Your task to perform on an android device: search for starred emails in the gmail app Image 0: 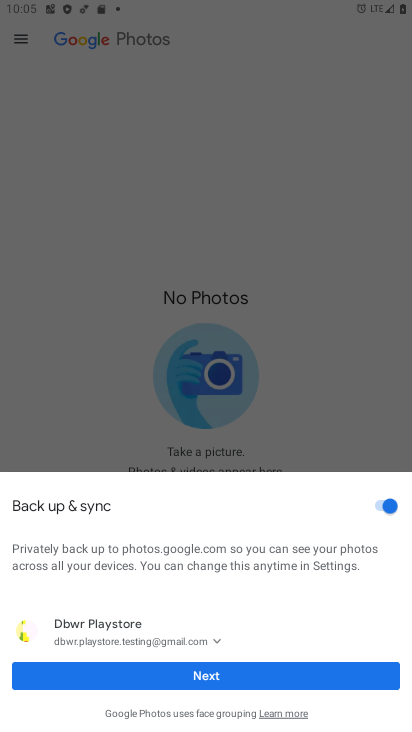
Step 0: press home button
Your task to perform on an android device: search for starred emails in the gmail app Image 1: 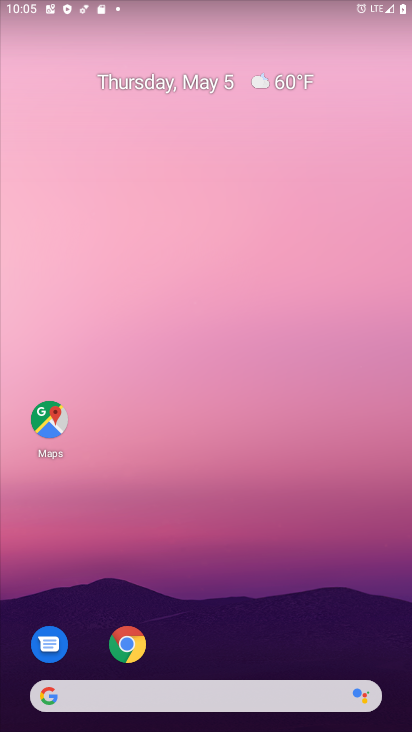
Step 1: drag from (200, 604) to (220, 221)
Your task to perform on an android device: search for starred emails in the gmail app Image 2: 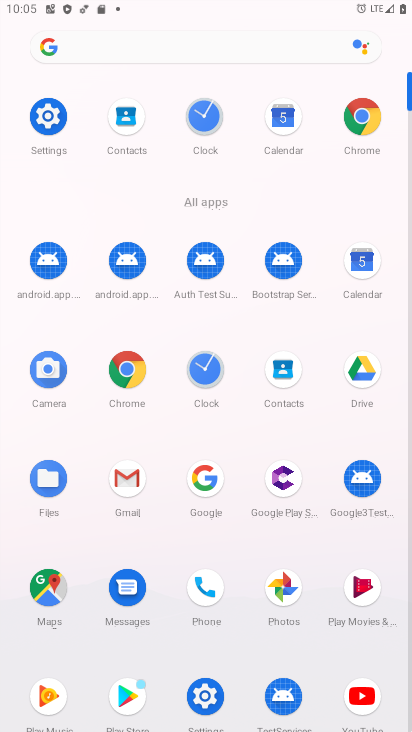
Step 2: click (119, 470)
Your task to perform on an android device: search for starred emails in the gmail app Image 3: 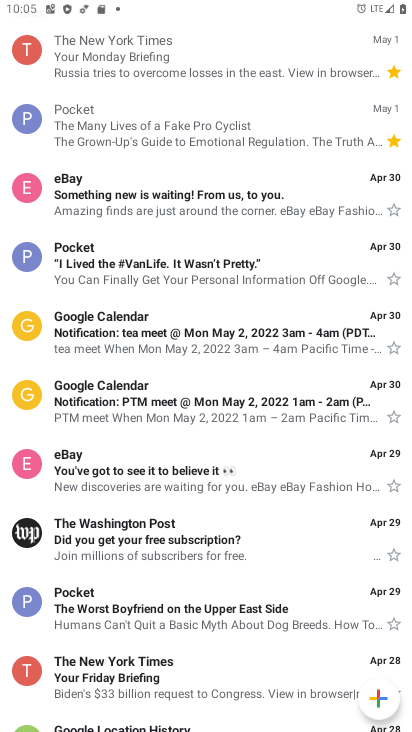
Step 3: drag from (126, 99) to (112, 495)
Your task to perform on an android device: search for starred emails in the gmail app Image 4: 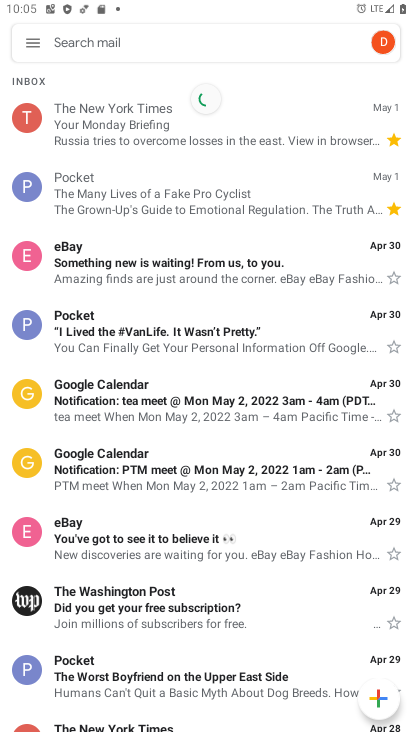
Step 4: click (33, 41)
Your task to perform on an android device: search for starred emails in the gmail app Image 5: 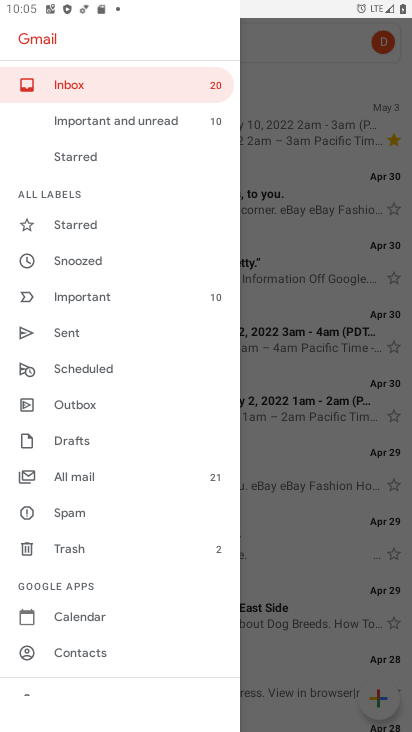
Step 5: click (83, 229)
Your task to perform on an android device: search for starred emails in the gmail app Image 6: 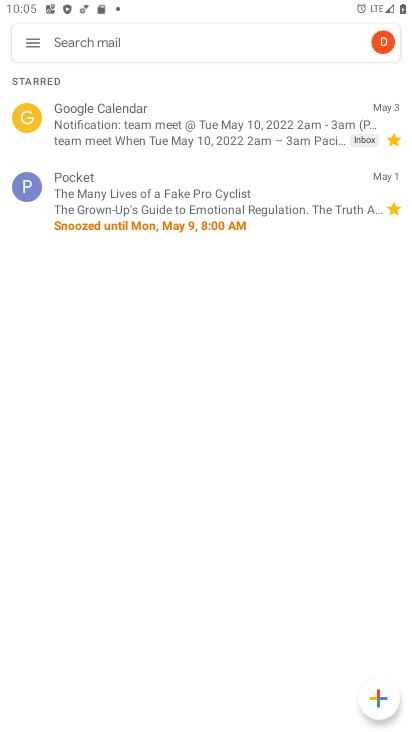
Step 6: task complete